Your task to perform on an android device: move a message to another label in the gmail app Image 0: 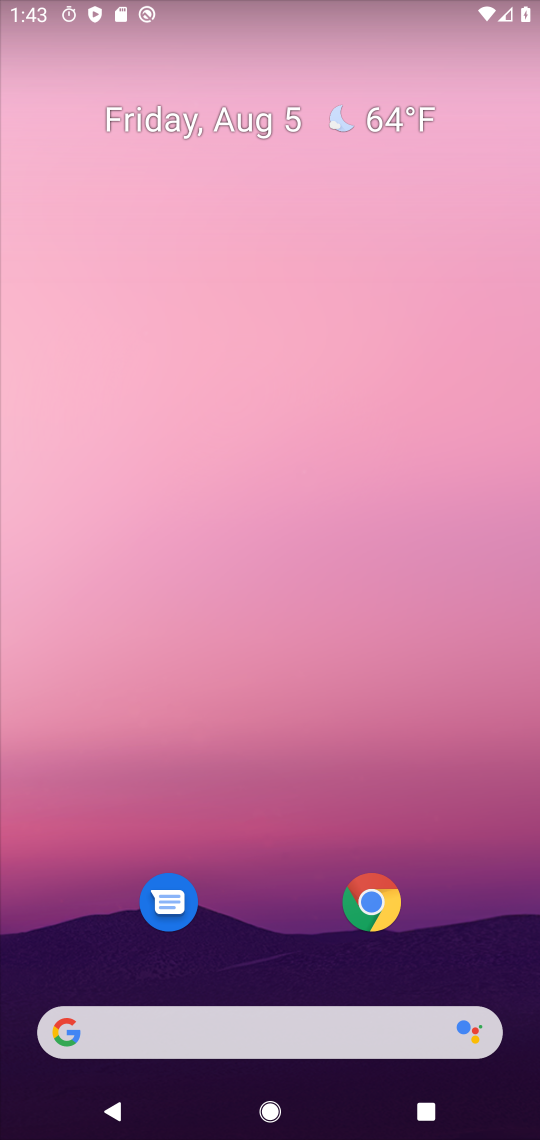
Step 0: press home button
Your task to perform on an android device: move a message to another label in the gmail app Image 1: 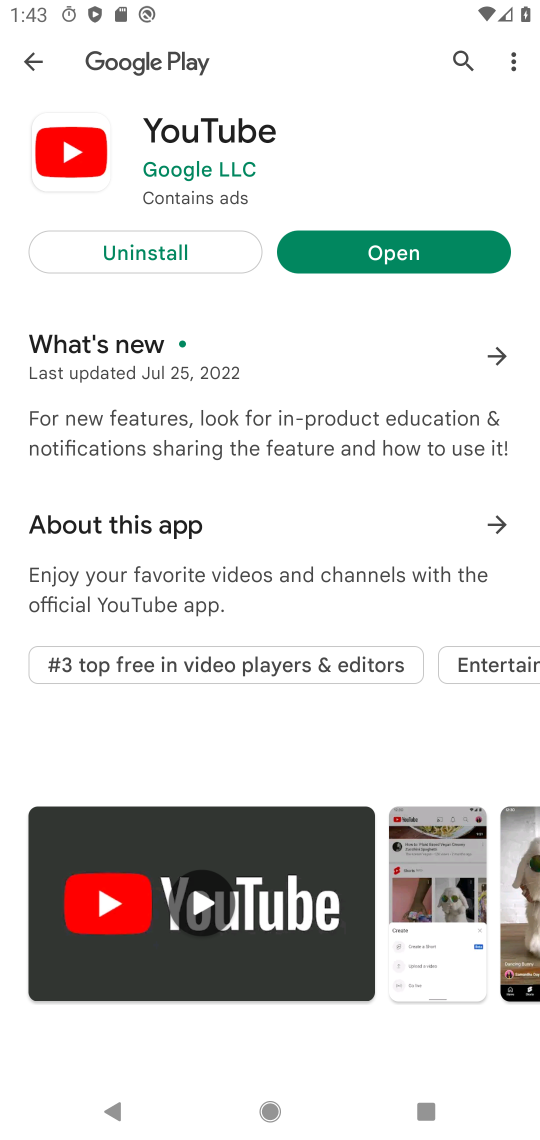
Step 1: click (372, 224)
Your task to perform on an android device: move a message to another label in the gmail app Image 2: 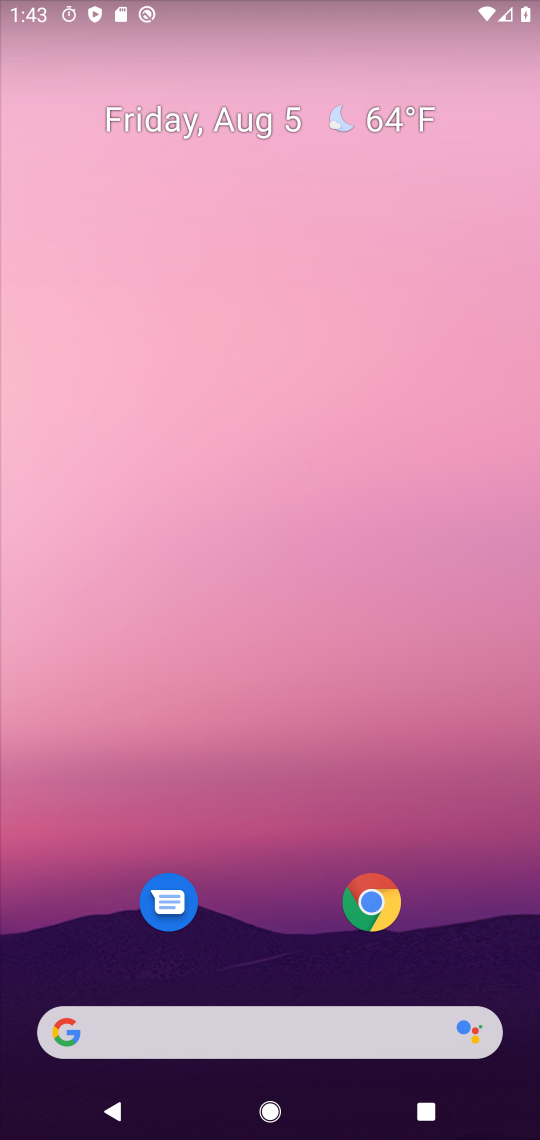
Step 2: press home button
Your task to perform on an android device: move a message to another label in the gmail app Image 3: 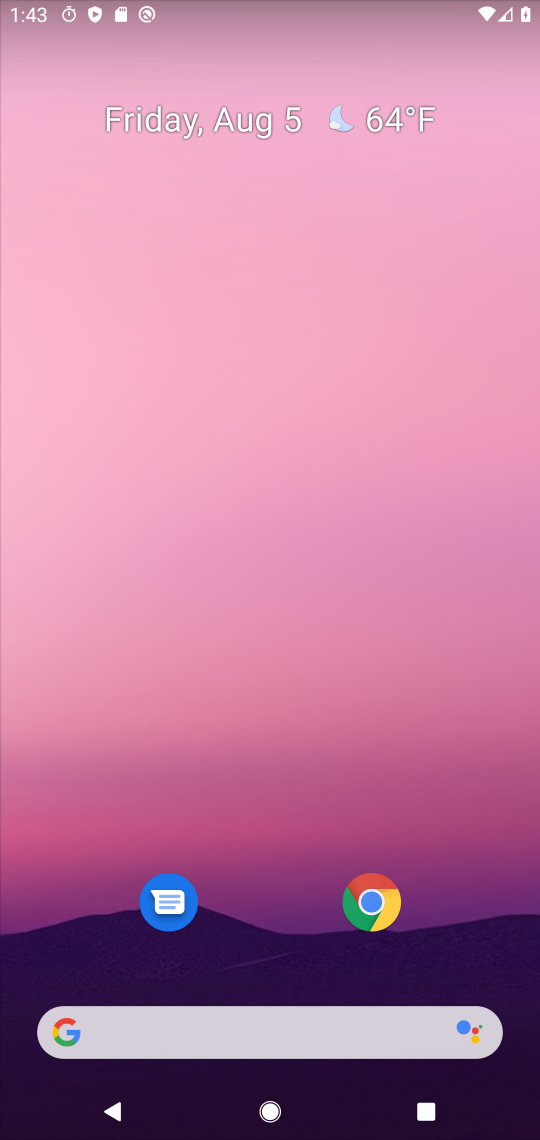
Step 3: drag from (312, 1048) to (376, 184)
Your task to perform on an android device: move a message to another label in the gmail app Image 4: 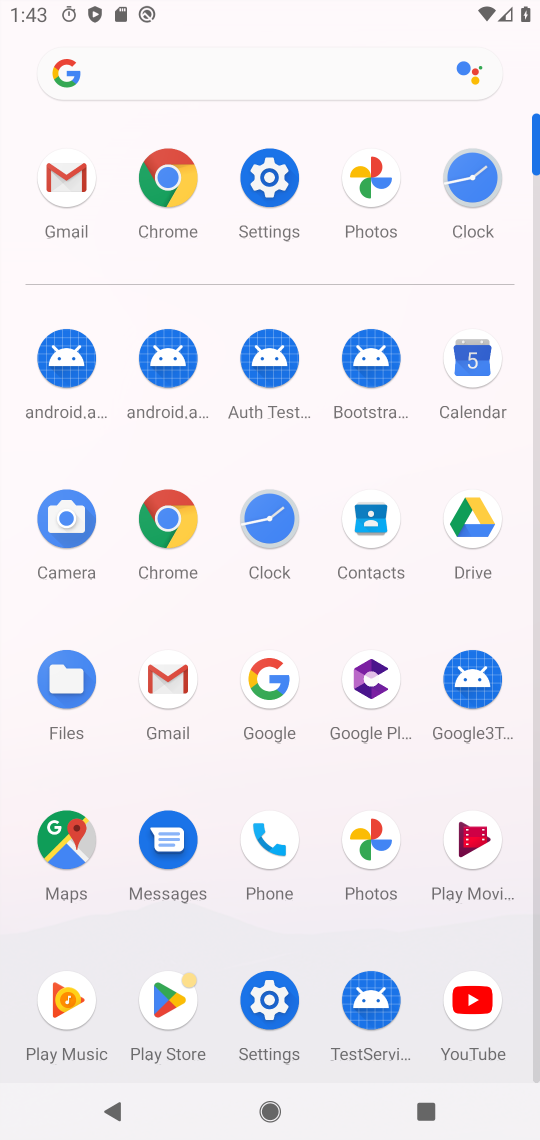
Step 4: click (190, 689)
Your task to perform on an android device: move a message to another label in the gmail app Image 5: 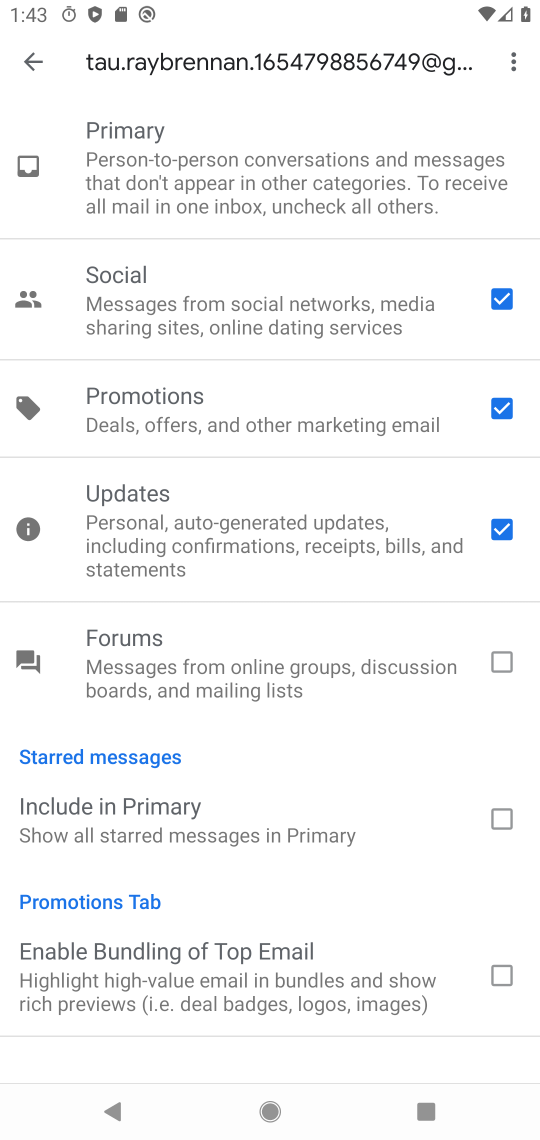
Step 5: click (27, 58)
Your task to perform on an android device: move a message to another label in the gmail app Image 6: 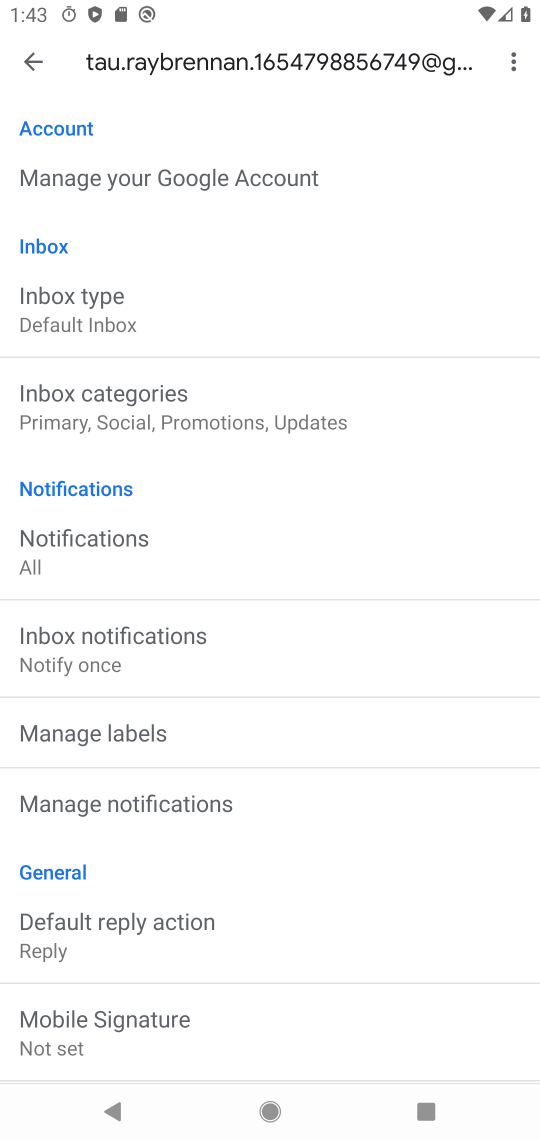
Step 6: click (146, 750)
Your task to perform on an android device: move a message to another label in the gmail app Image 7: 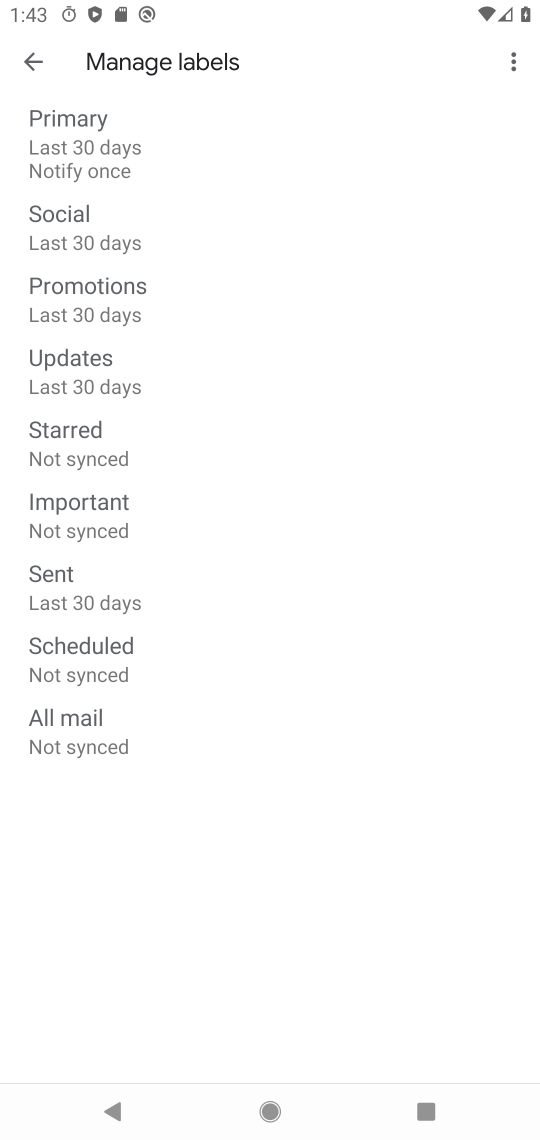
Step 7: click (81, 318)
Your task to perform on an android device: move a message to another label in the gmail app Image 8: 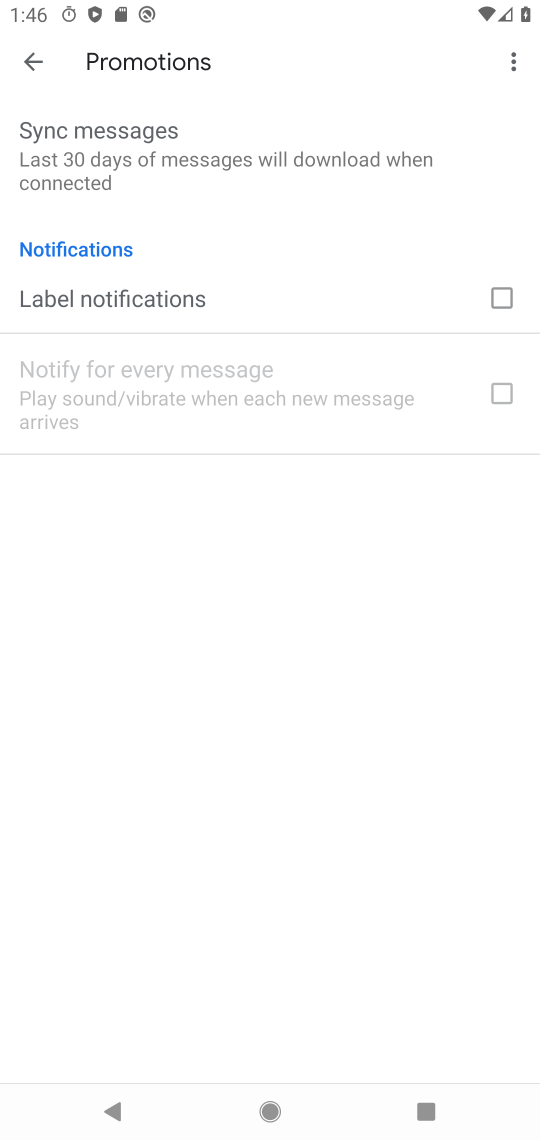
Step 8: task complete